Your task to perform on an android device: set the stopwatch Image 0: 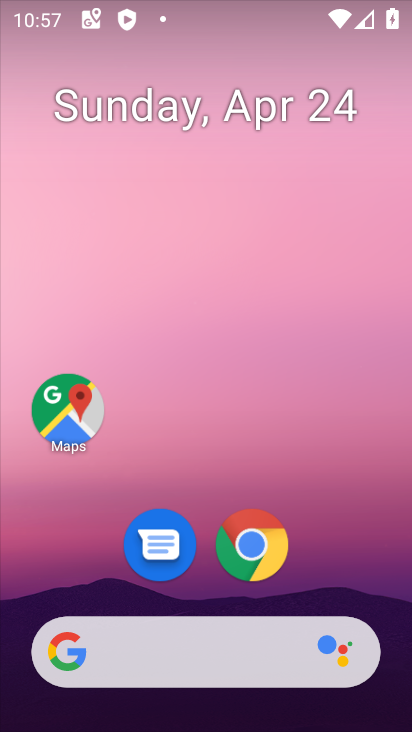
Step 0: drag from (293, 659) to (156, 147)
Your task to perform on an android device: set the stopwatch Image 1: 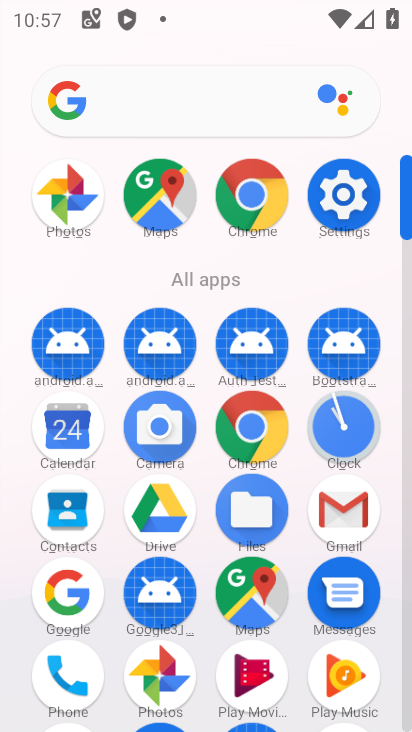
Step 1: click (349, 419)
Your task to perform on an android device: set the stopwatch Image 2: 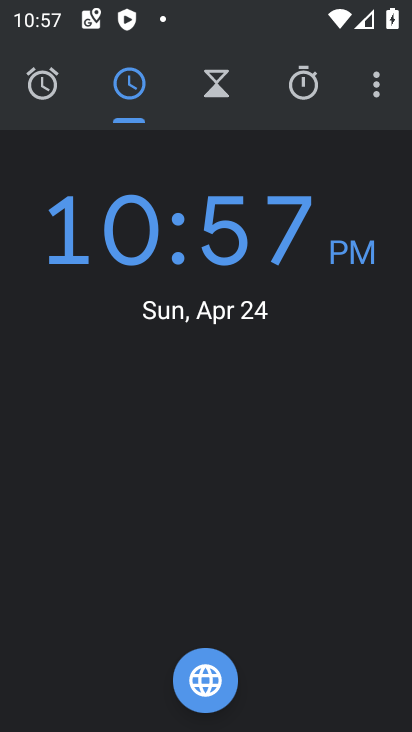
Step 2: click (302, 81)
Your task to perform on an android device: set the stopwatch Image 3: 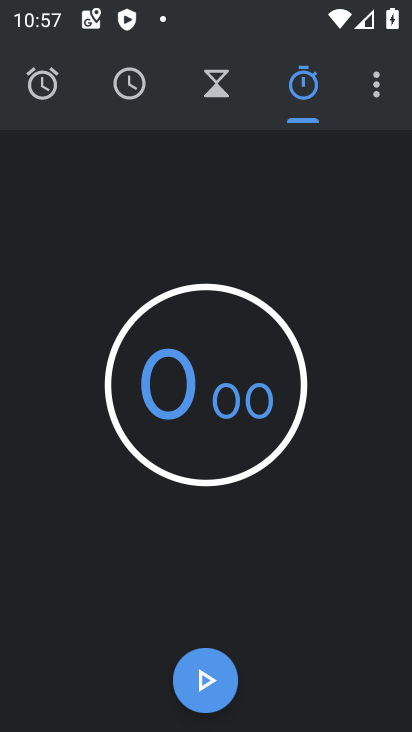
Step 3: click (192, 677)
Your task to perform on an android device: set the stopwatch Image 4: 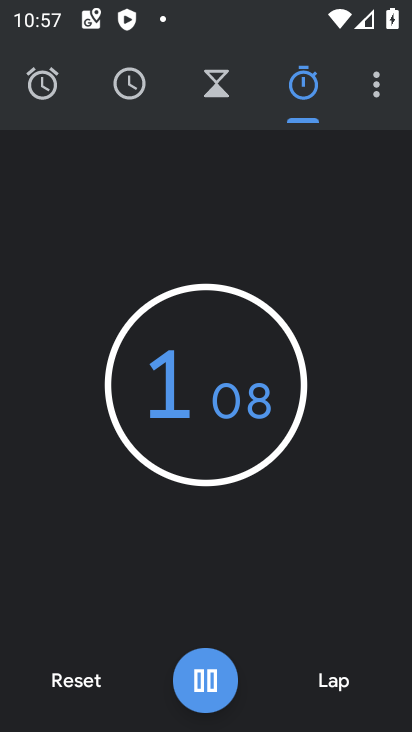
Step 4: click (194, 670)
Your task to perform on an android device: set the stopwatch Image 5: 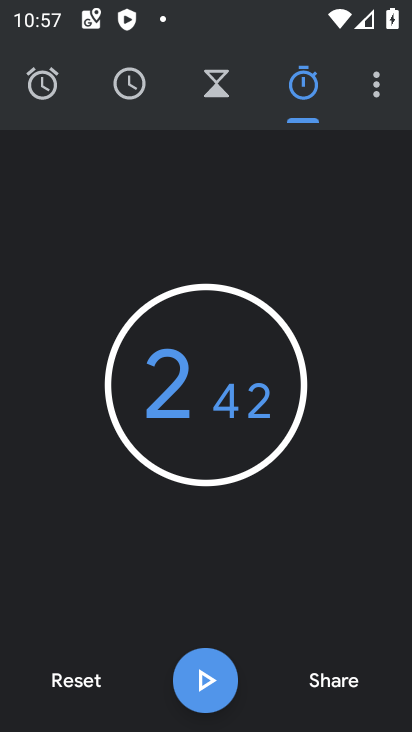
Step 5: task complete